Your task to perform on an android device: delete browsing data in the chrome app Image 0: 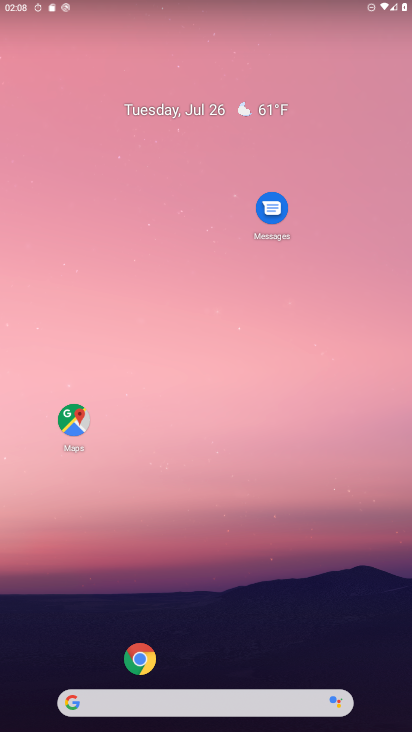
Step 0: click (147, 661)
Your task to perform on an android device: delete browsing data in the chrome app Image 1: 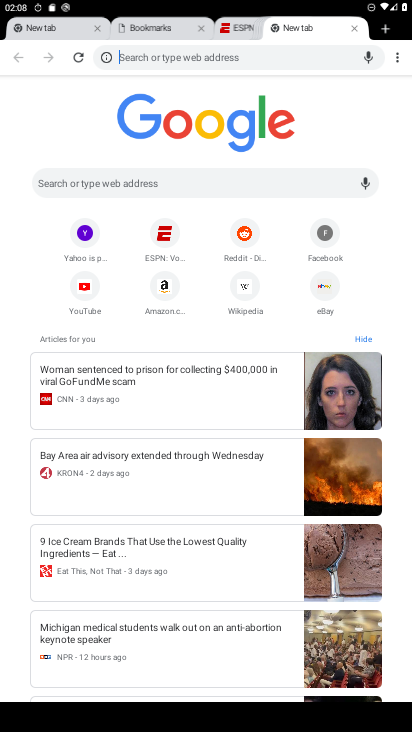
Step 1: click (393, 64)
Your task to perform on an android device: delete browsing data in the chrome app Image 2: 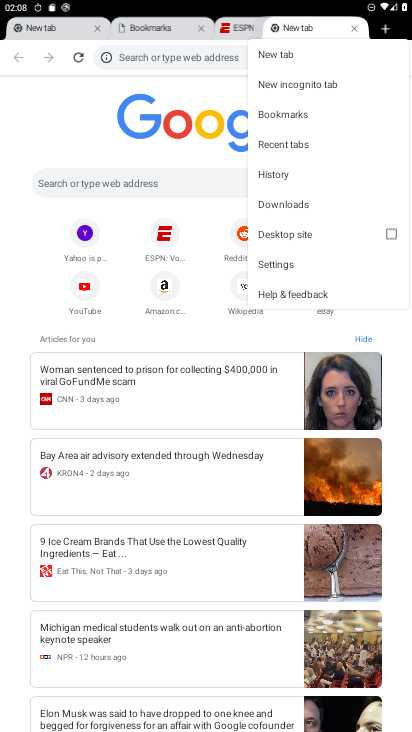
Step 2: click (284, 174)
Your task to perform on an android device: delete browsing data in the chrome app Image 3: 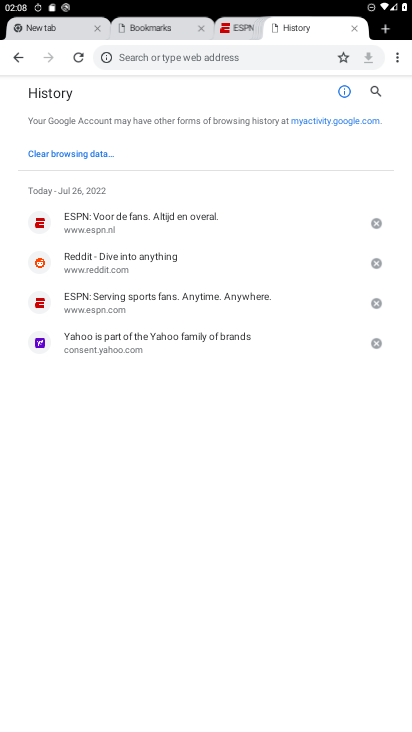
Step 3: click (74, 155)
Your task to perform on an android device: delete browsing data in the chrome app Image 4: 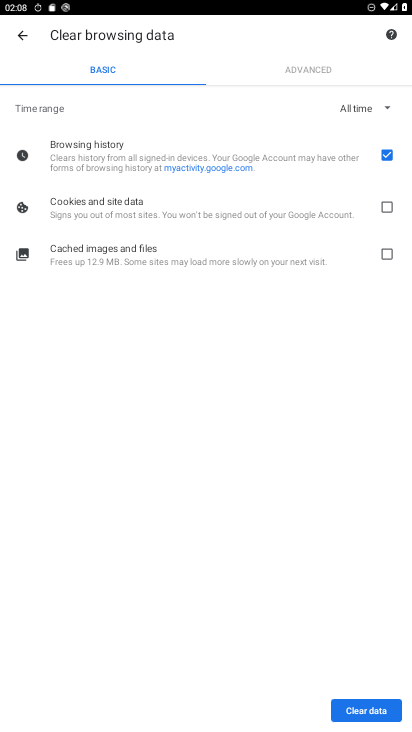
Step 4: click (361, 701)
Your task to perform on an android device: delete browsing data in the chrome app Image 5: 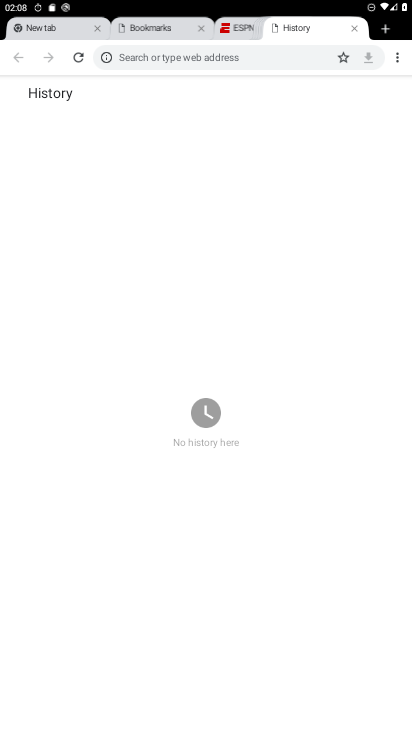
Step 5: click (344, 709)
Your task to perform on an android device: delete browsing data in the chrome app Image 6: 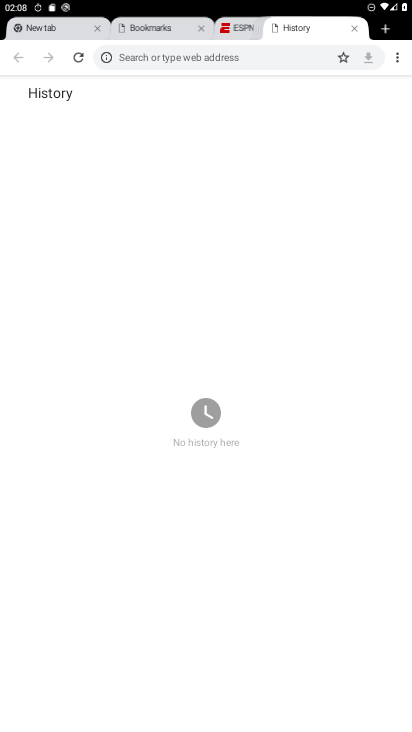
Step 6: task complete